Your task to perform on an android device: Open Chrome and go to settings Image 0: 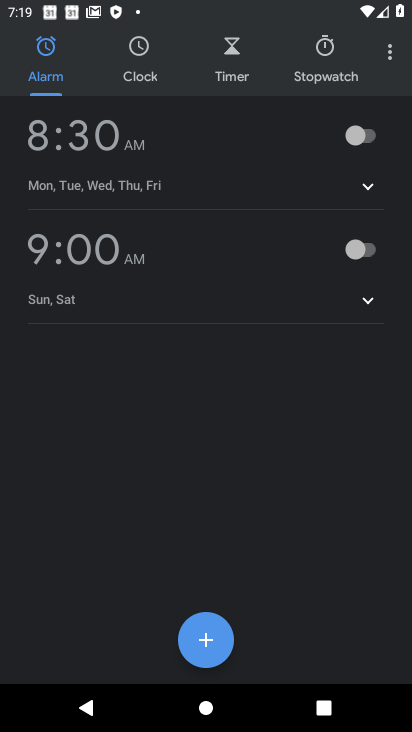
Step 0: press home button
Your task to perform on an android device: Open Chrome and go to settings Image 1: 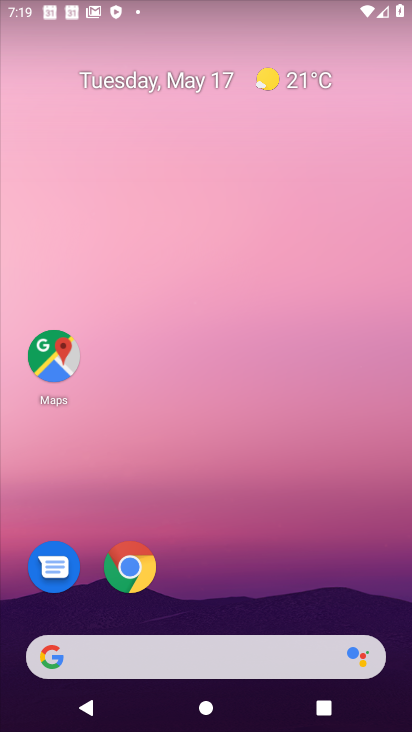
Step 1: click (130, 565)
Your task to perform on an android device: Open Chrome and go to settings Image 2: 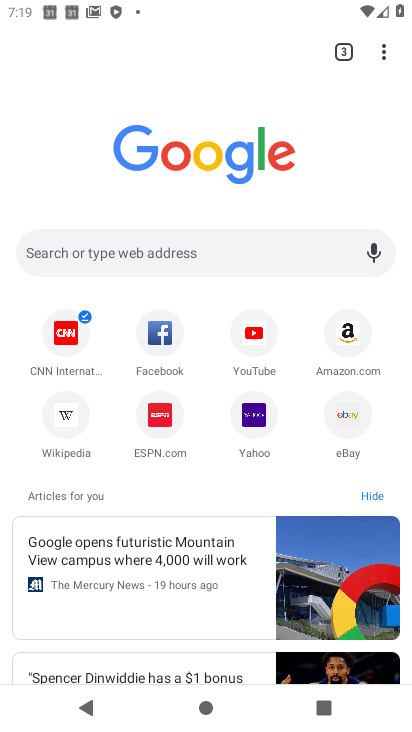
Step 2: click (377, 50)
Your task to perform on an android device: Open Chrome and go to settings Image 3: 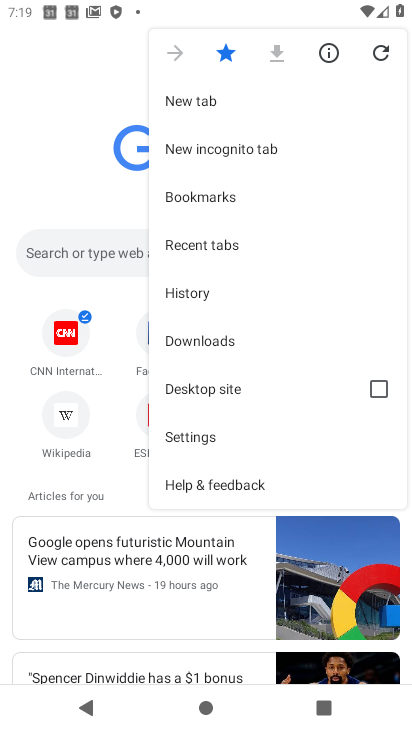
Step 3: click (199, 435)
Your task to perform on an android device: Open Chrome and go to settings Image 4: 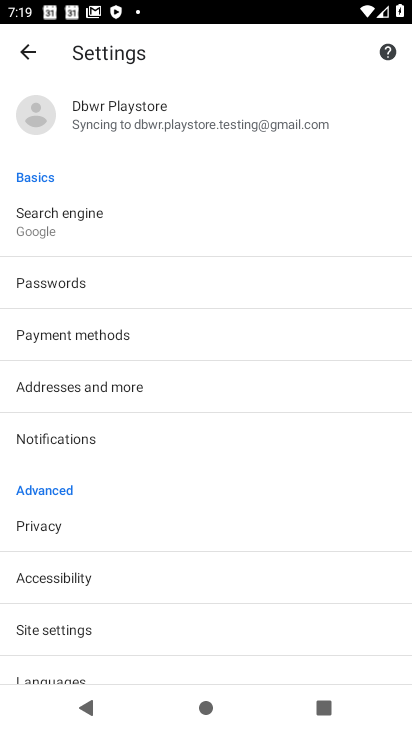
Step 4: task complete